Your task to perform on an android device: change the clock display to analog Image 0: 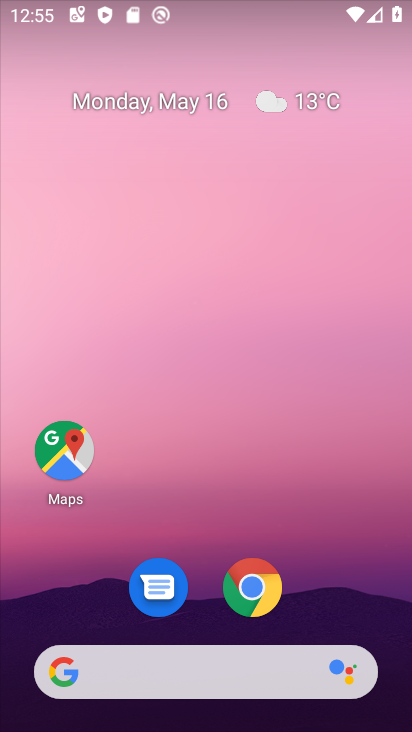
Step 0: drag from (196, 721) to (181, 181)
Your task to perform on an android device: change the clock display to analog Image 1: 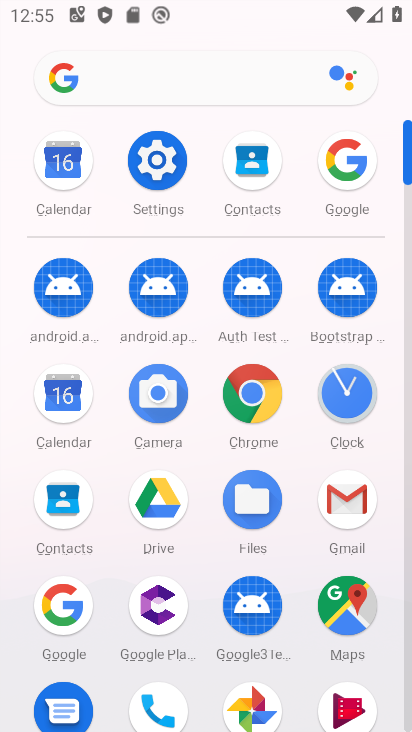
Step 1: click (352, 399)
Your task to perform on an android device: change the clock display to analog Image 2: 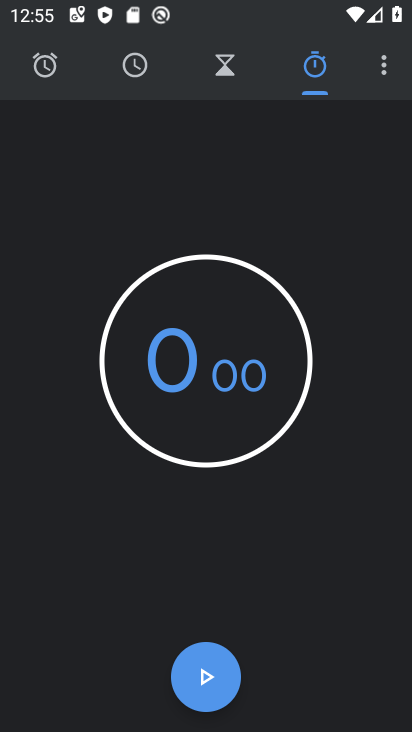
Step 2: click (385, 75)
Your task to perform on an android device: change the clock display to analog Image 3: 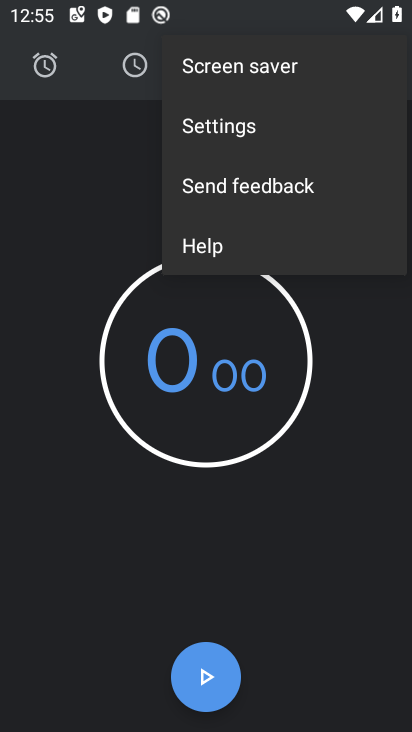
Step 3: click (248, 125)
Your task to perform on an android device: change the clock display to analog Image 4: 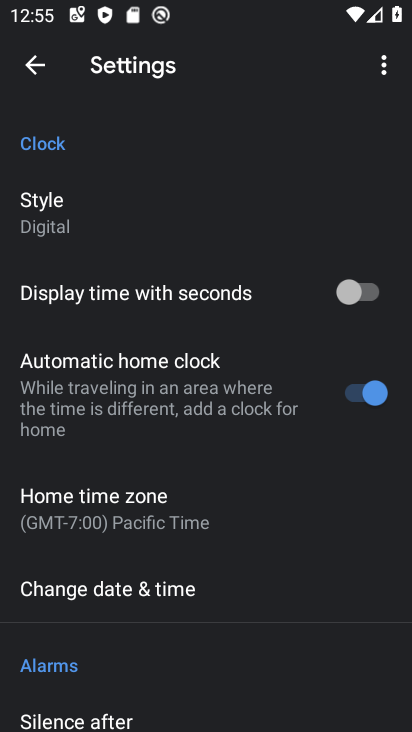
Step 4: click (51, 210)
Your task to perform on an android device: change the clock display to analog Image 5: 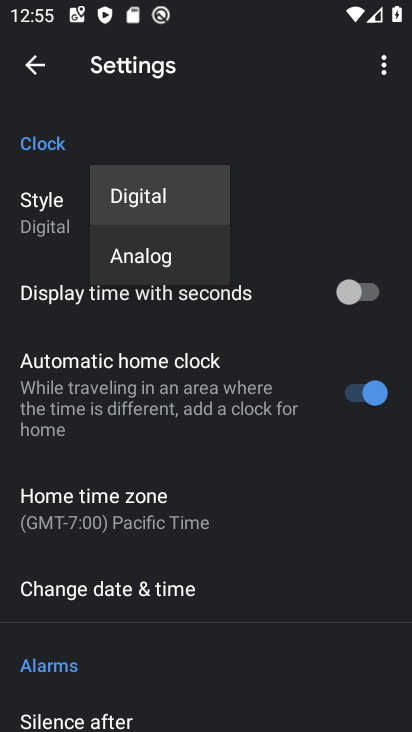
Step 5: click (141, 240)
Your task to perform on an android device: change the clock display to analog Image 6: 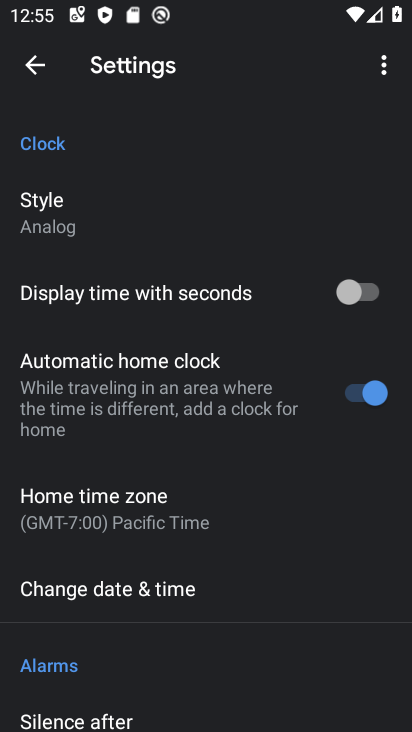
Step 6: task complete